Your task to perform on an android device: Go to accessibility settings Image 0: 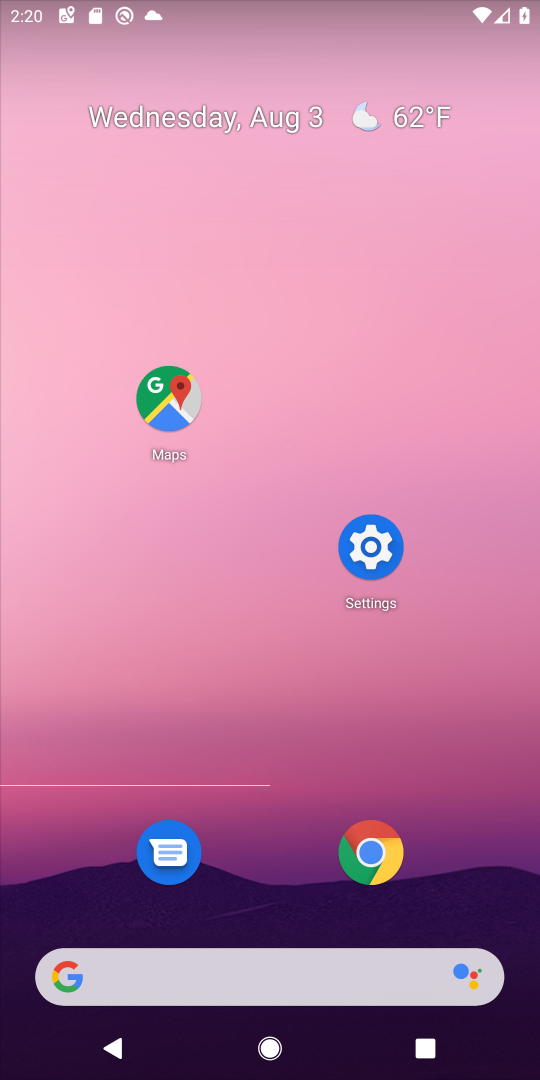
Step 0: press home button
Your task to perform on an android device: Go to accessibility settings Image 1: 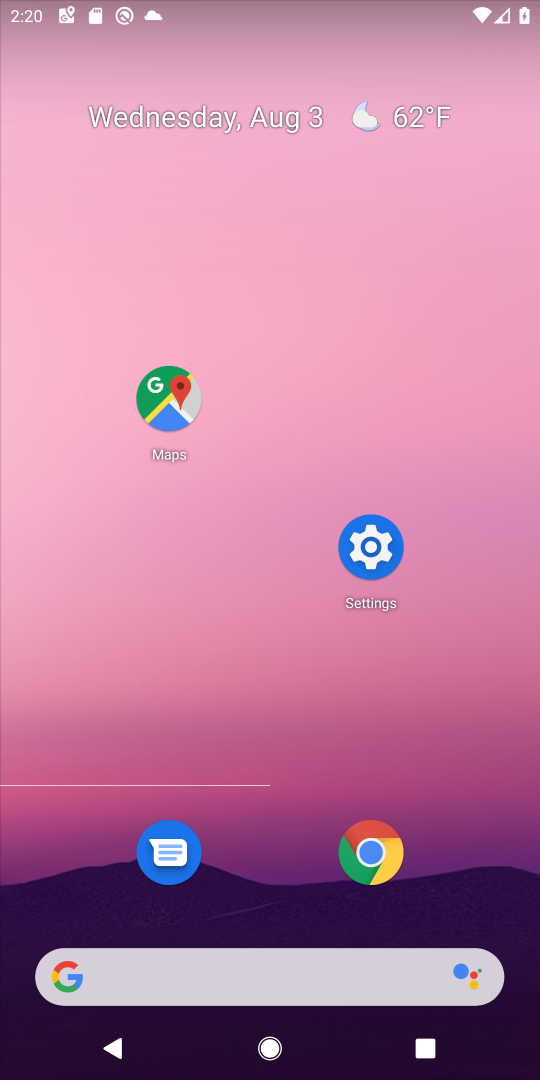
Step 1: click (354, 541)
Your task to perform on an android device: Go to accessibility settings Image 2: 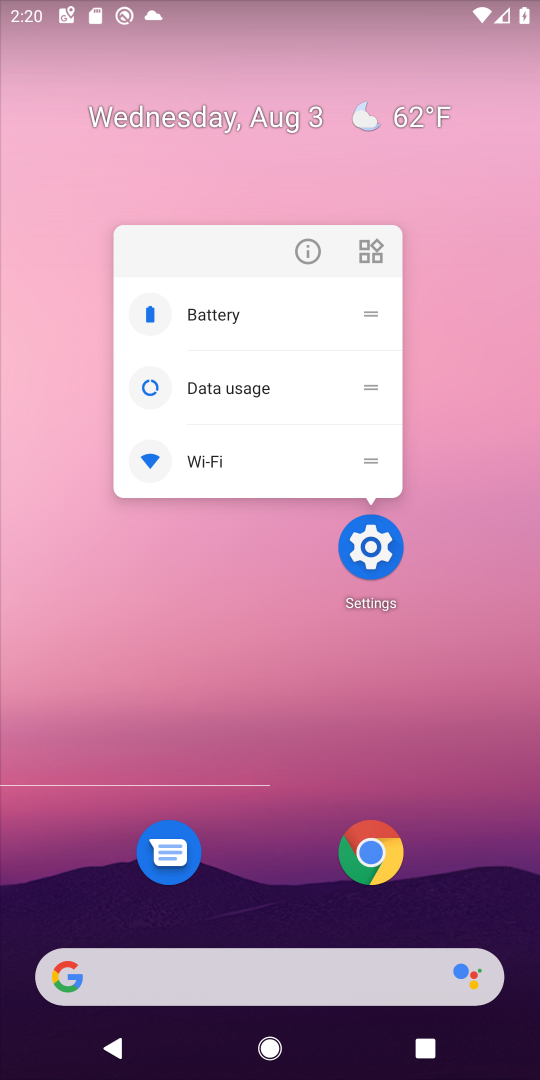
Step 2: click (382, 555)
Your task to perform on an android device: Go to accessibility settings Image 3: 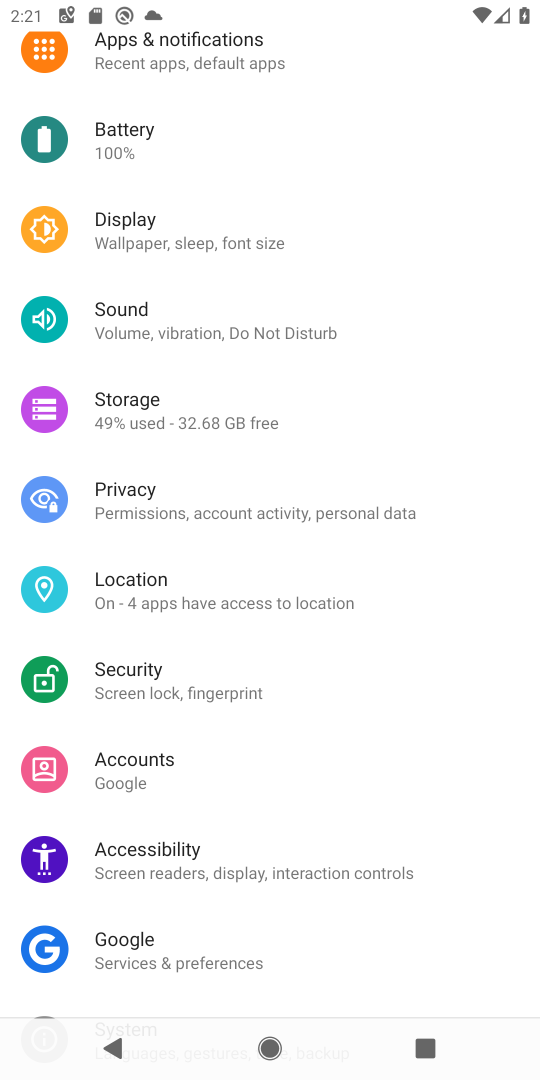
Step 3: drag from (310, 784) to (371, 89)
Your task to perform on an android device: Go to accessibility settings Image 4: 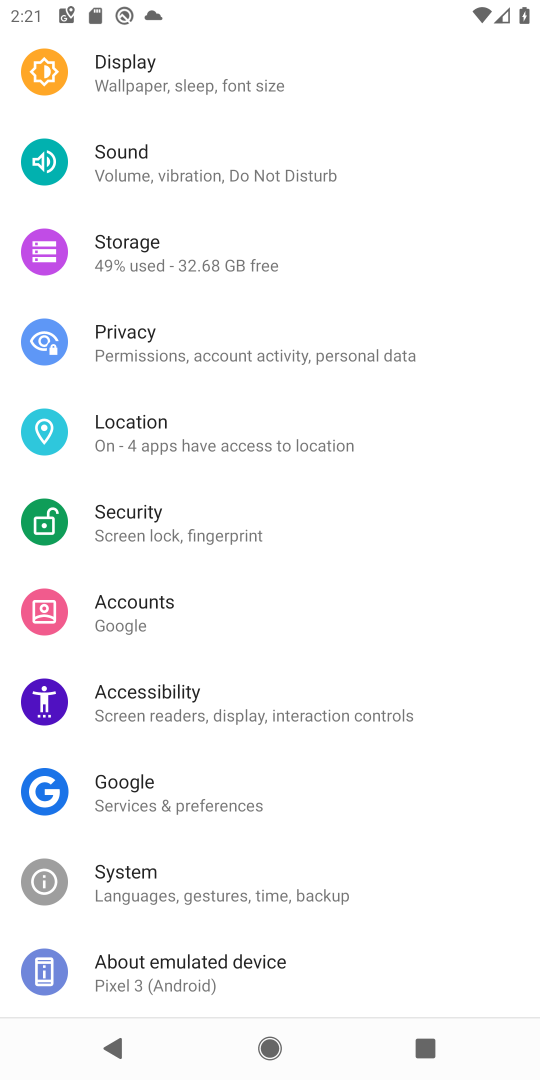
Step 4: click (160, 696)
Your task to perform on an android device: Go to accessibility settings Image 5: 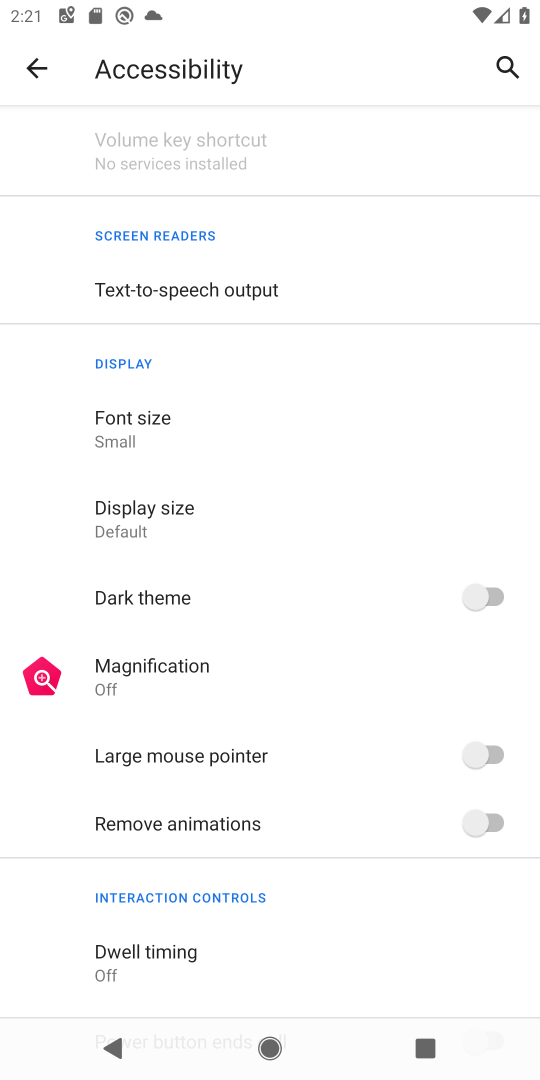
Step 5: task complete